Your task to perform on an android device: Open notification settings Image 0: 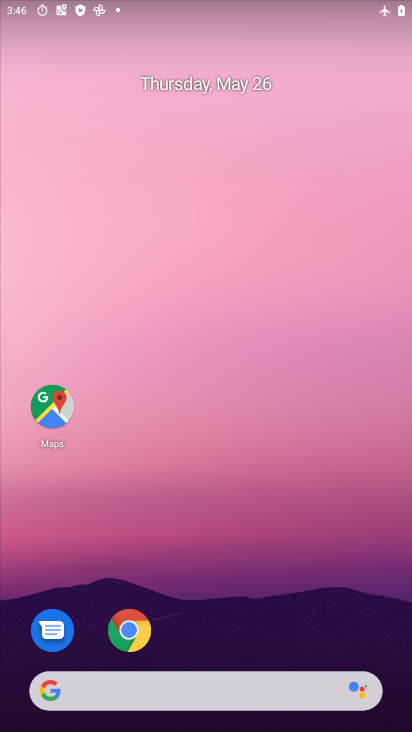
Step 0: drag from (256, 638) to (240, 51)
Your task to perform on an android device: Open notification settings Image 1: 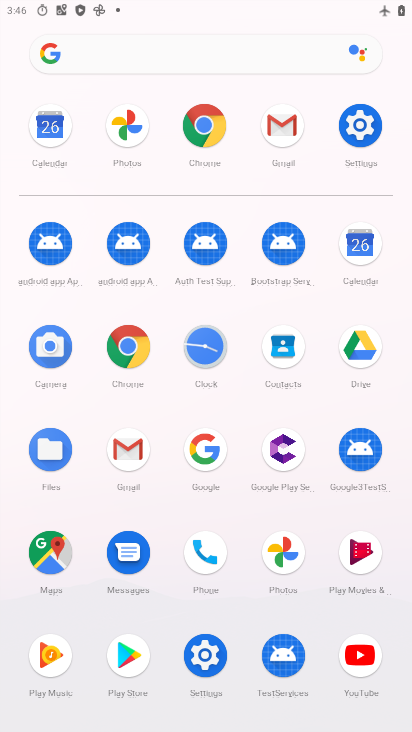
Step 1: click (370, 114)
Your task to perform on an android device: Open notification settings Image 2: 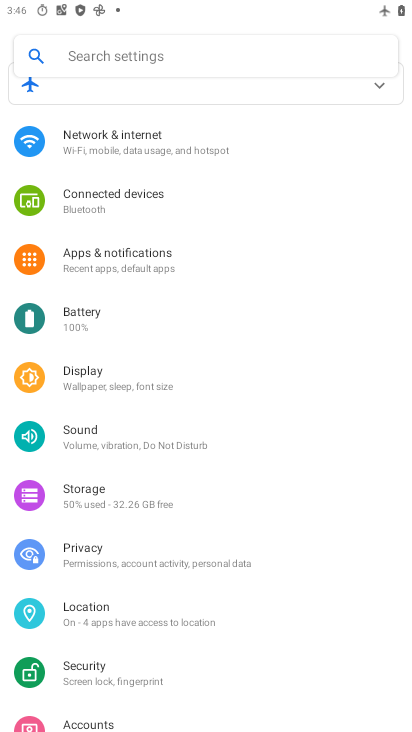
Step 2: click (108, 249)
Your task to perform on an android device: Open notification settings Image 3: 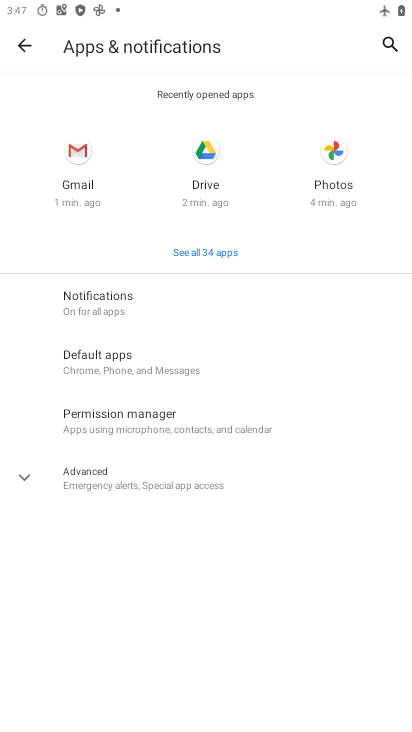
Step 3: click (112, 295)
Your task to perform on an android device: Open notification settings Image 4: 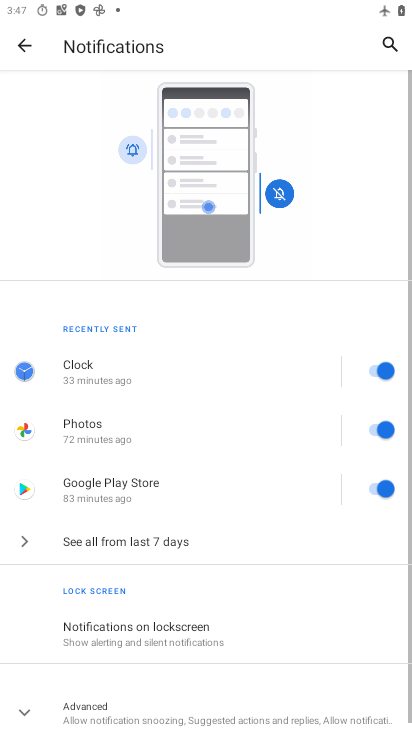
Step 4: click (112, 295)
Your task to perform on an android device: Open notification settings Image 5: 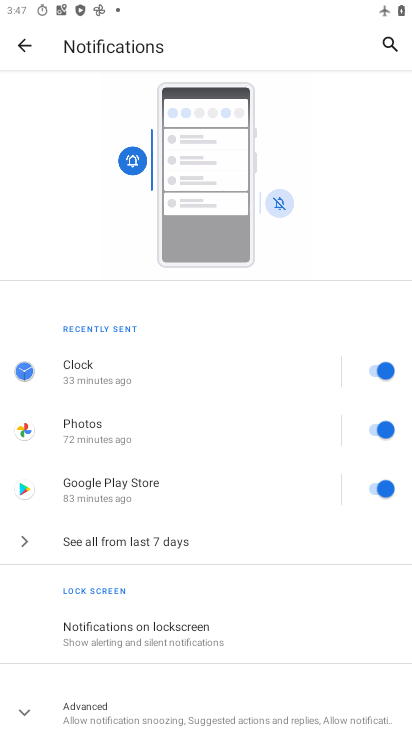
Step 5: task complete